Your task to perform on an android device: turn notification dots off Image 0: 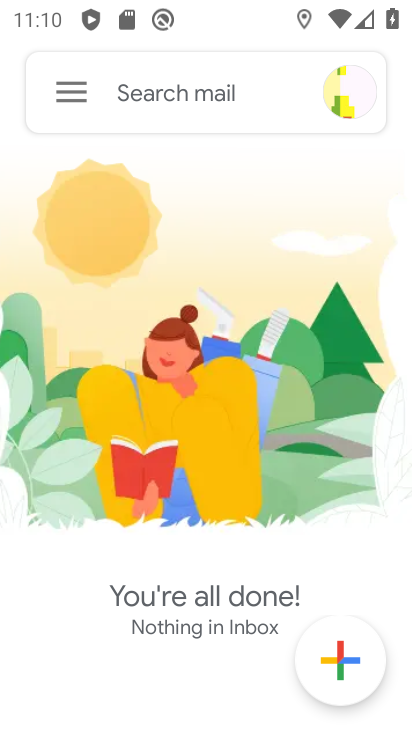
Step 0: press home button
Your task to perform on an android device: turn notification dots off Image 1: 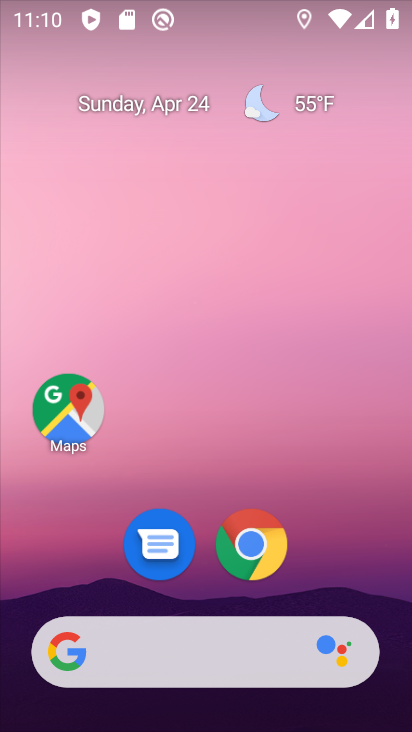
Step 1: drag from (319, 483) to (300, 167)
Your task to perform on an android device: turn notification dots off Image 2: 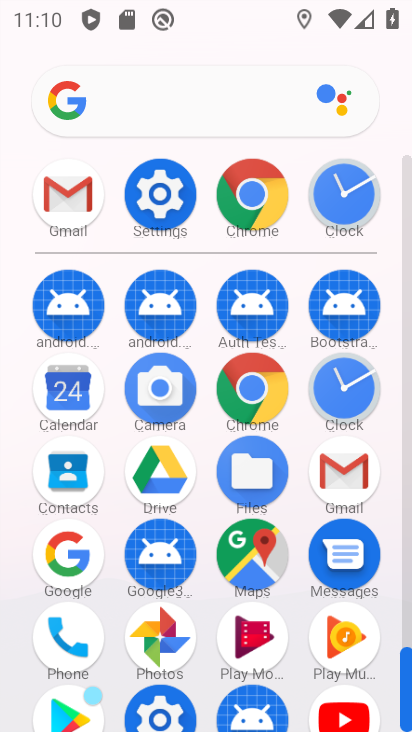
Step 2: click (152, 191)
Your task to perform on an android device: turn notification dots off Image 3: 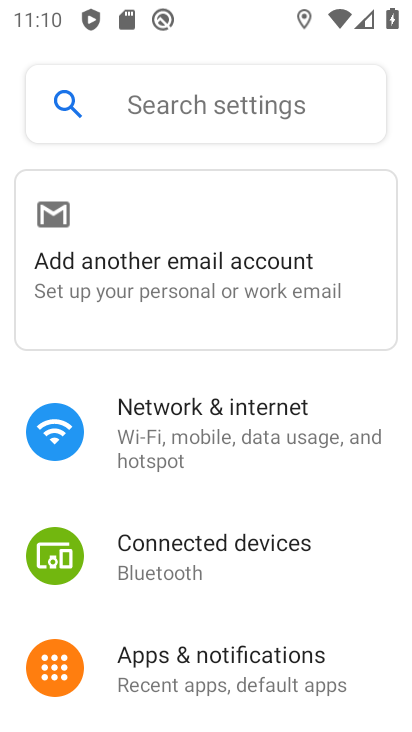
Step 3: click (229, 683)
Your task to perform on an android device: turn notification dots off Image 4: 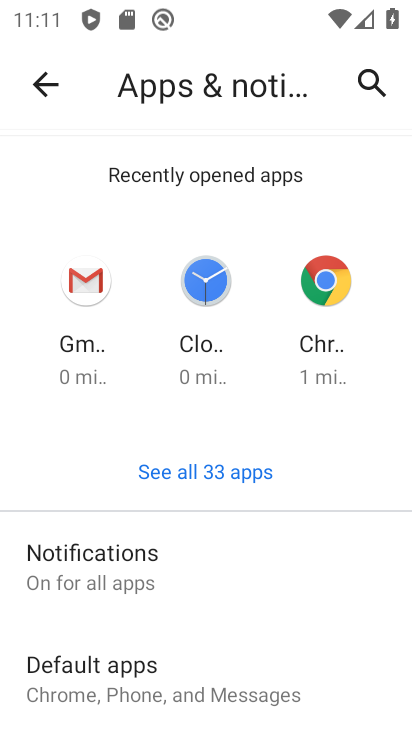
Step 4: click (92, 561)
Your task to perform on an android device: turn notification dots off Image 5: 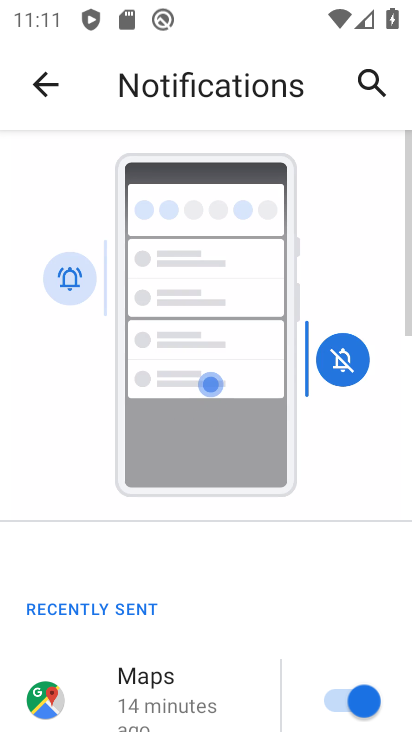
Step 5: drag from (119, 622) to (110, 156)
Your task to perform on an android device: turn notification dots off Image 6: 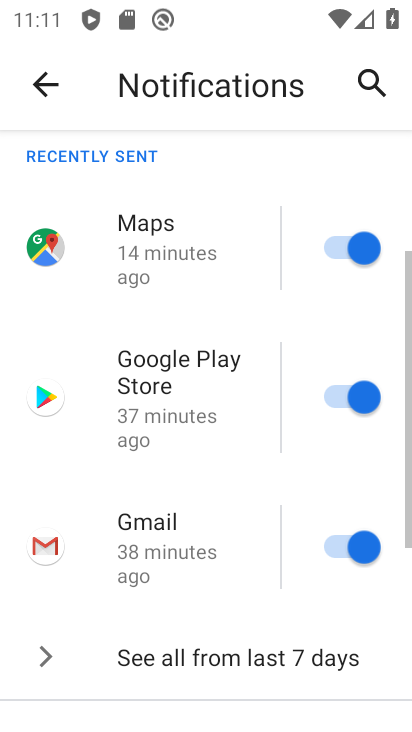
Step 6: drag from (139, 700) to (127, 317)
Your task to perform on an android device: turn notification dots off Image 7: 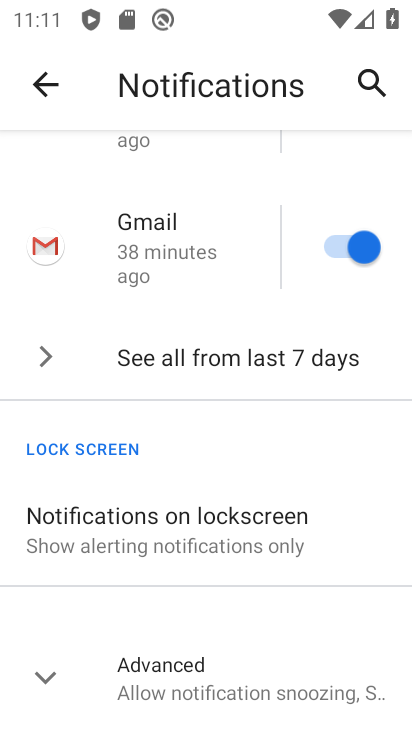
Step 7: click (167, 677)
Your task to perform on an android device: turn notification dots off Image 8: 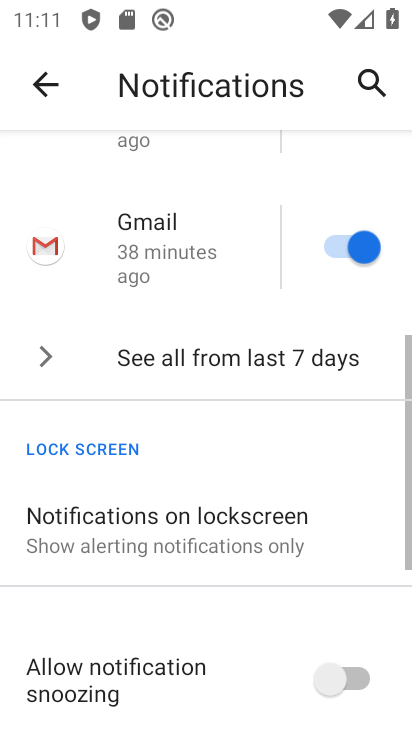
Step 8: drag from (167, 674) to (199, 179)
Your task to perform on an android device: turn notification dots off Image 9: 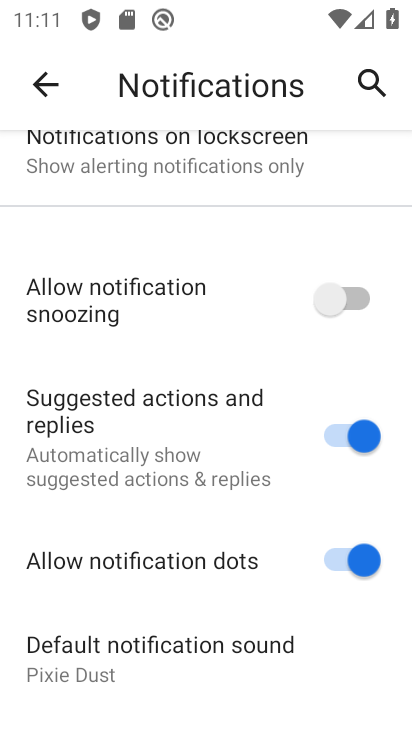
Step 9: click (359, 553)
Your task to perform on an android device: turn notification dots off Image 10: 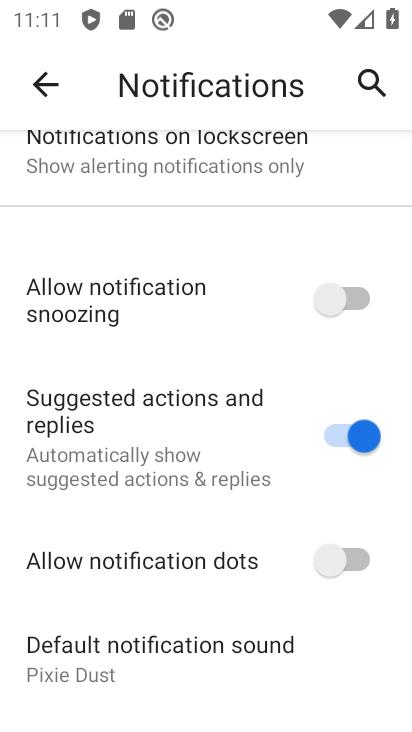
Step 10: task complete